Your task to perform on an android device: Open Yahoo.com Image 0: 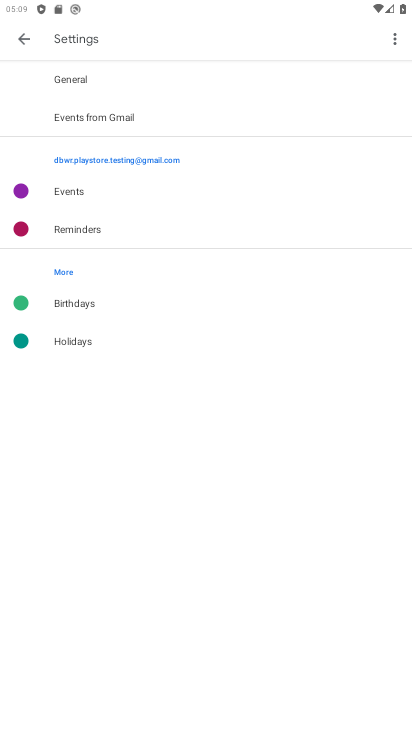
Step 0: press back button
Your task to perform on an android device: Open Yahoo.com Image 1: 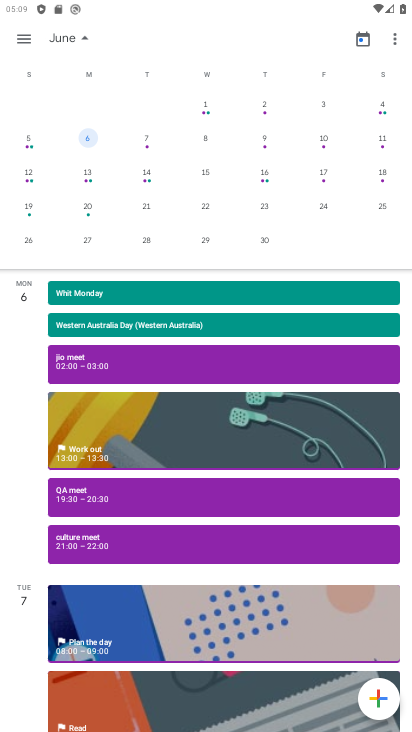
Step 1: press back button
Your task to perform on an android device: Open Yahoo.com Image 2: 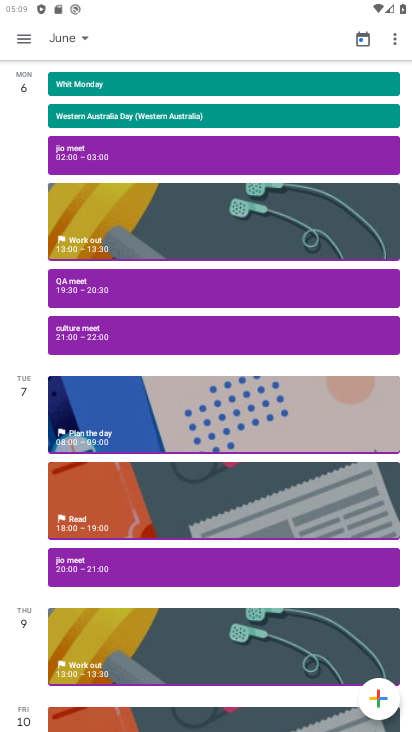
Step 2: press back button
Your task to perform on an android device: Open Yahoo.com Image 3: 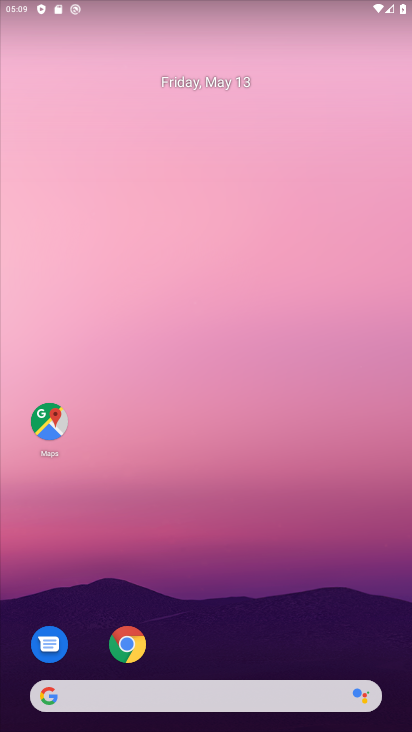
Step 3: click (123, 657)
Your task to perform on an android device: Open Yahoo.com Image 4: 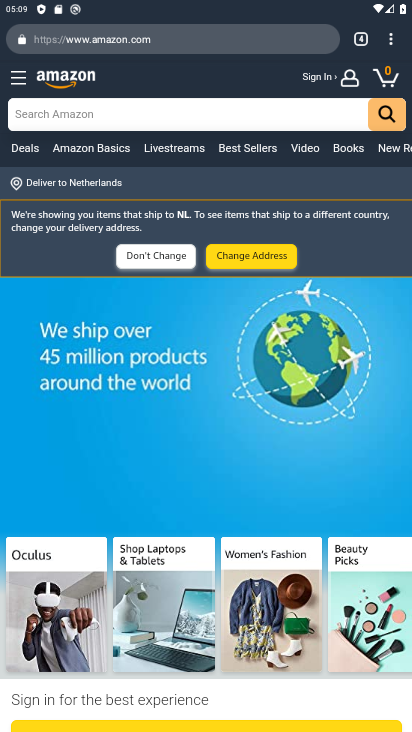
Step 4: click (363, 42)
Your task to perform on an android device: Open Yahoo.com Image 5: 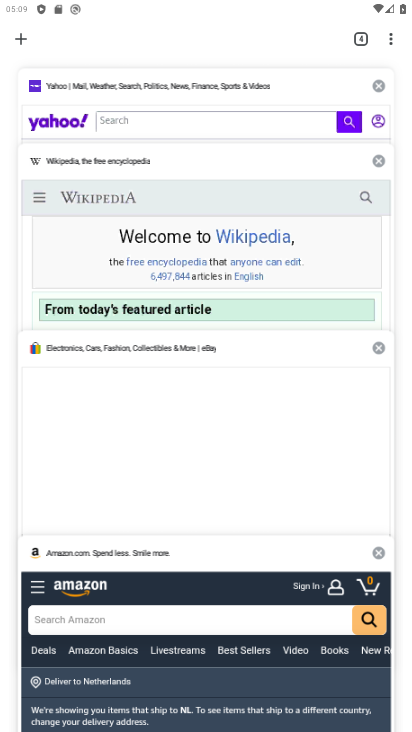
Step 5: click (81, 114)
Your task to perform on an android device: Open Yahoo.com Image 6: 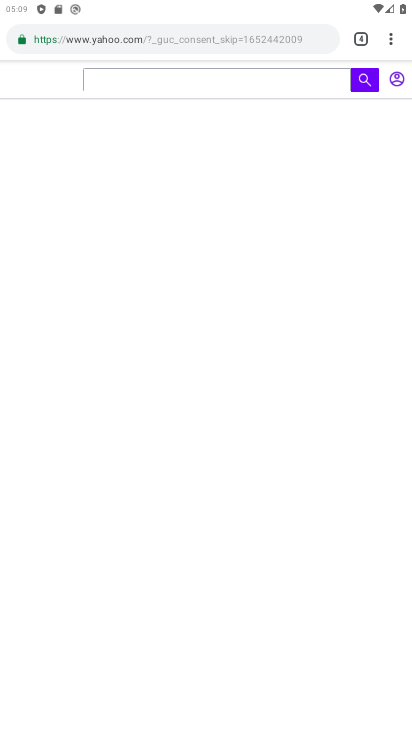
Step 6: task complete